Your task to perform on an android device: set the stopwatch Image 0: 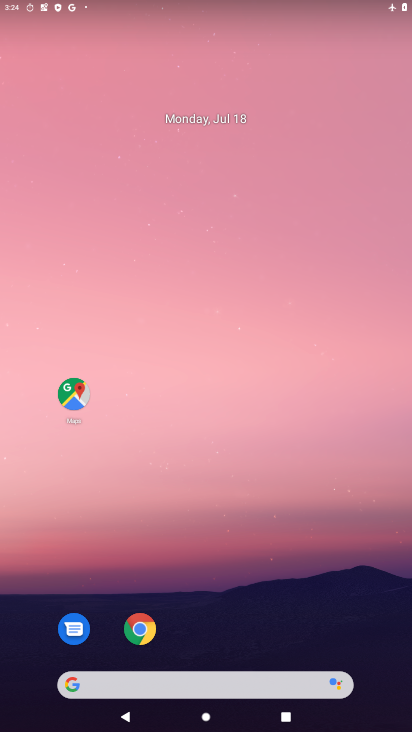
Step 0: drag from (205, 645) to (132, 150)
Your task to perform on an android device: set the stopwatch Image 1: 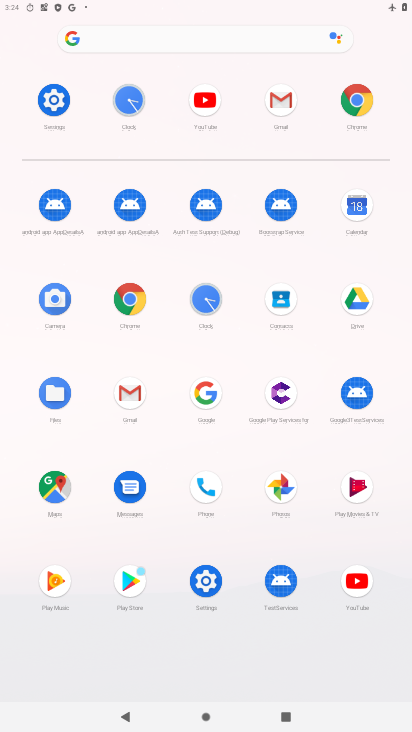
Step 1: click (203, 304)
Your task to perform on an android device: set the stopwatch Image 2: 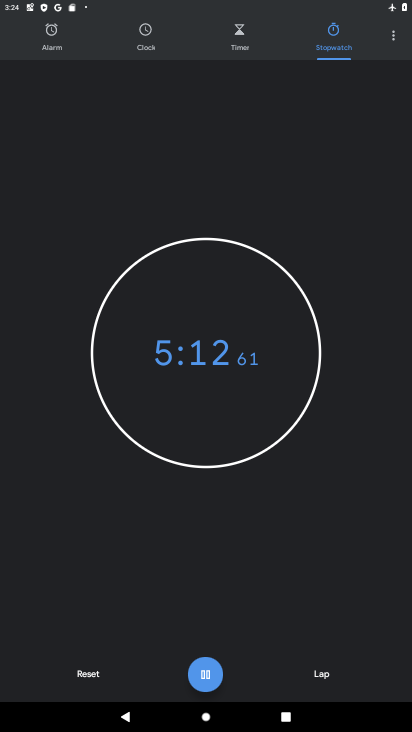
Step 2: click (195, 668)
Your task to perform on an android device: set the stopwatch Image 3: 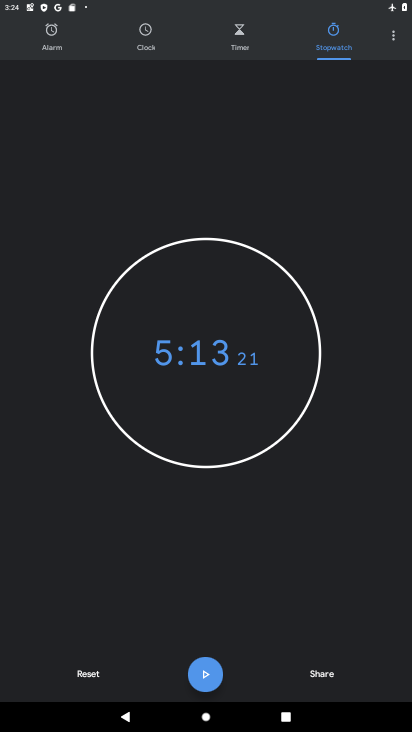
Step 3: task complete